Your task to perform on an android device: Toggle the flashlight Image 0: 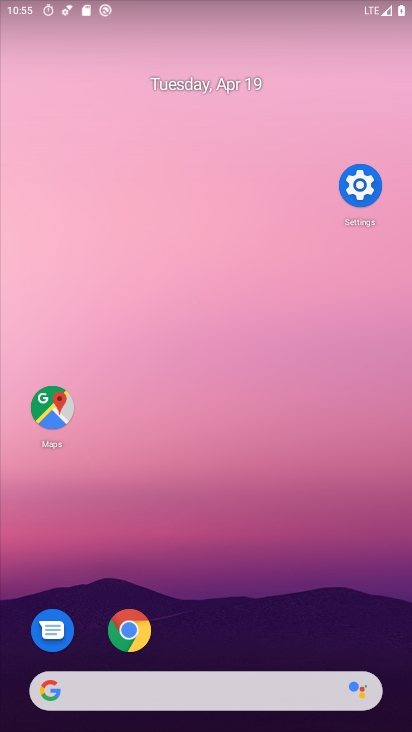
Step 0: drag from (281, 146) to (263, 363)
Your task to perform on an android device: Toggle the flashlight Image 1: 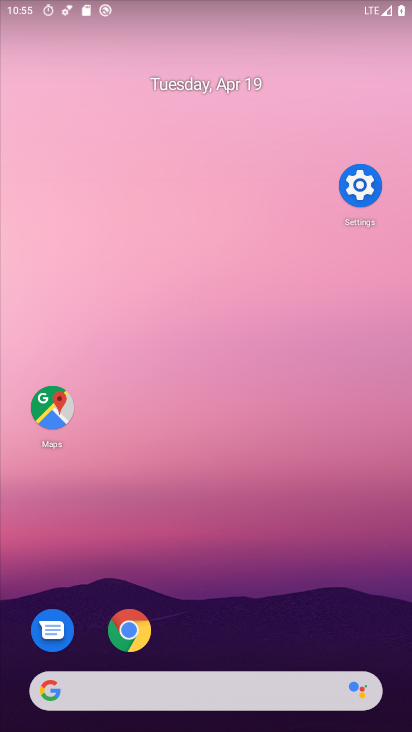
Step 1: task complete